Your task to perform on an android device: Open CNN.com Image 0: 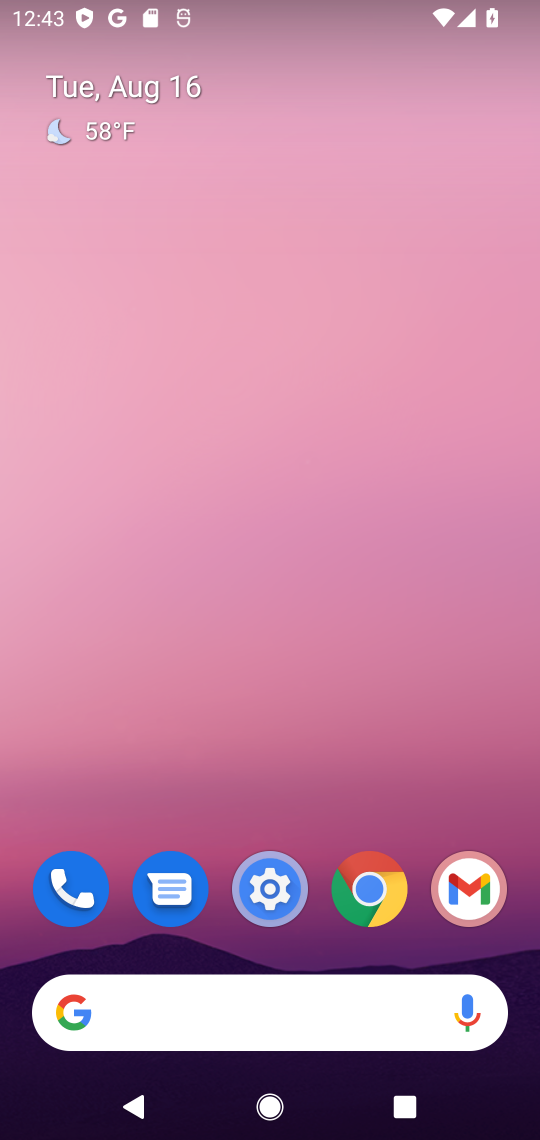
Step 0: drag from (252, 871) to (391, 0)
Your task to perform on an android device: Open CNN.com Image 1: 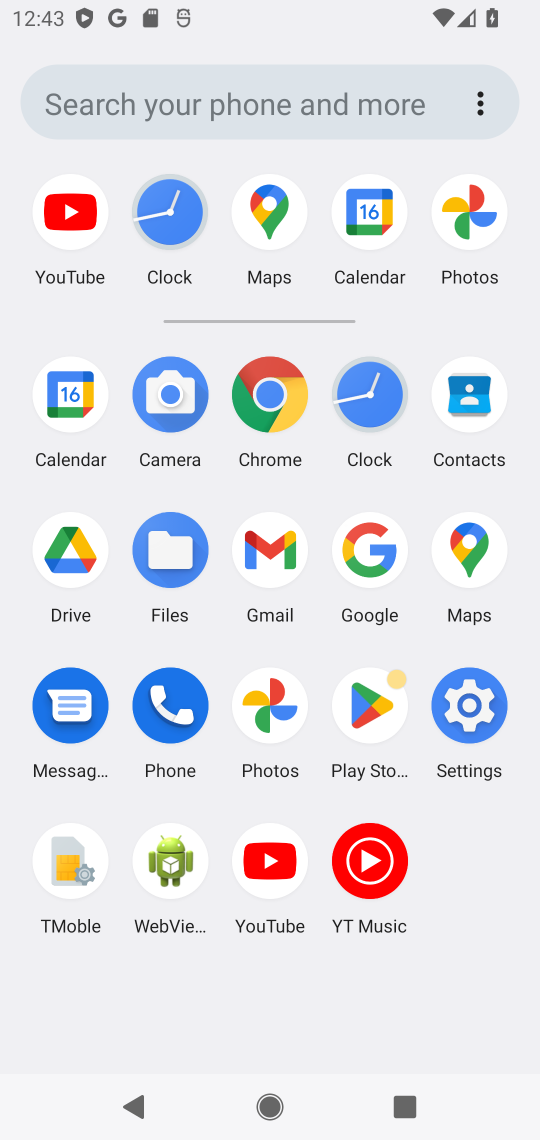
Step 1: click (283, 400)
Your task to perform on an android device: Open CNN.com Image 2: 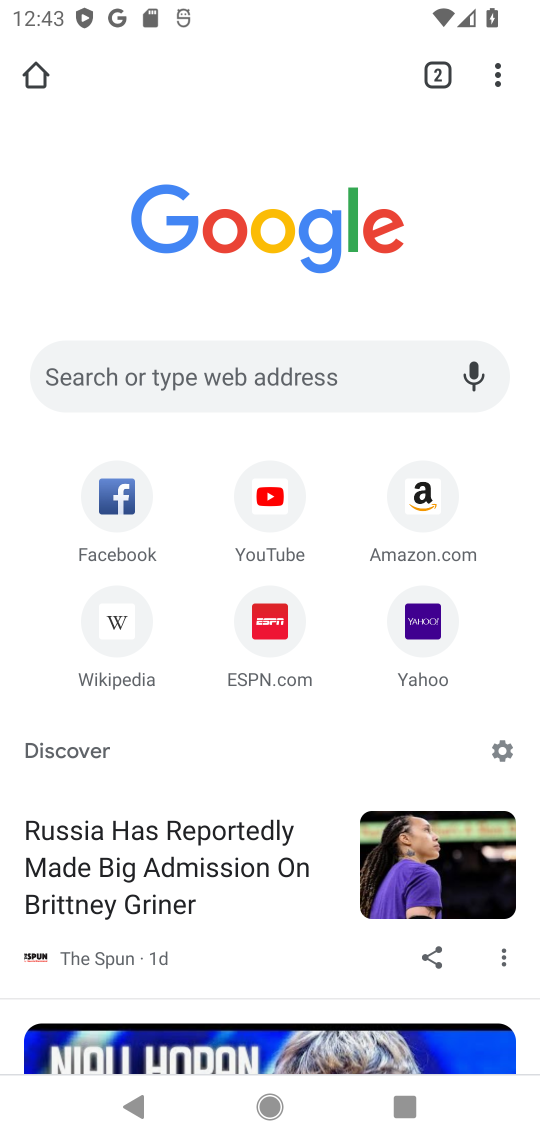
Step 2: click (189, 375)
Your task to perform on an android device: Open CNN.com Image 3: 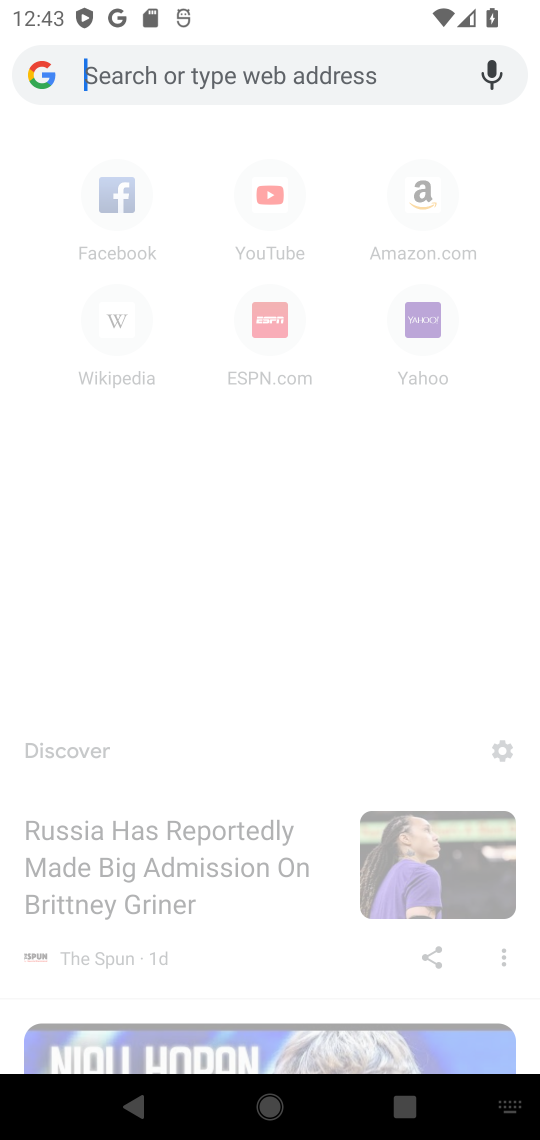
Step 3: type "CNN.com"
Your task to perform on an android device: Open CNN.com Image 4: 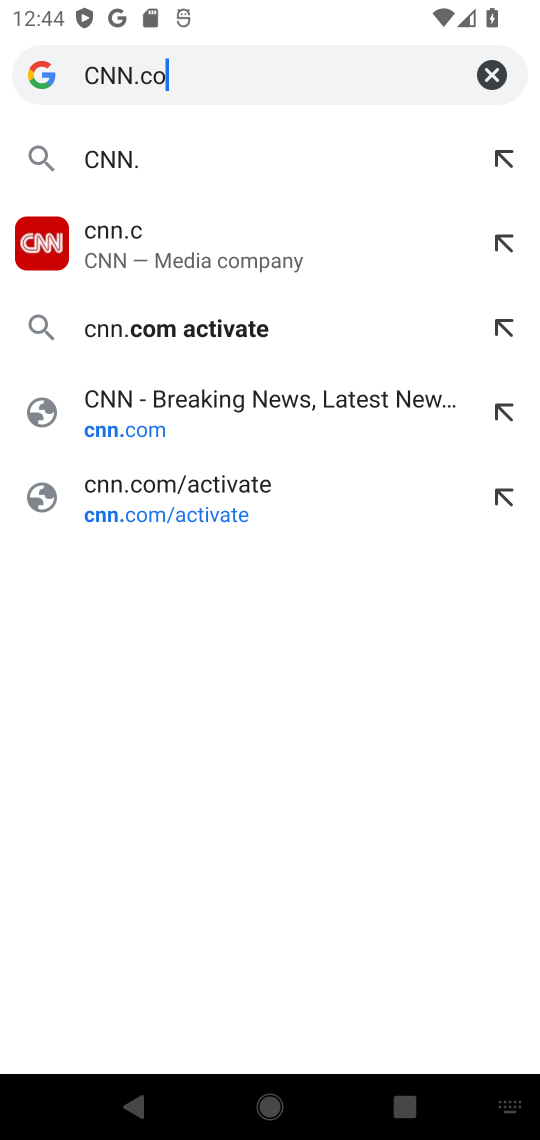
Step 4: press enter
Your task to perform on an android device: Open CNN.com Image 5: 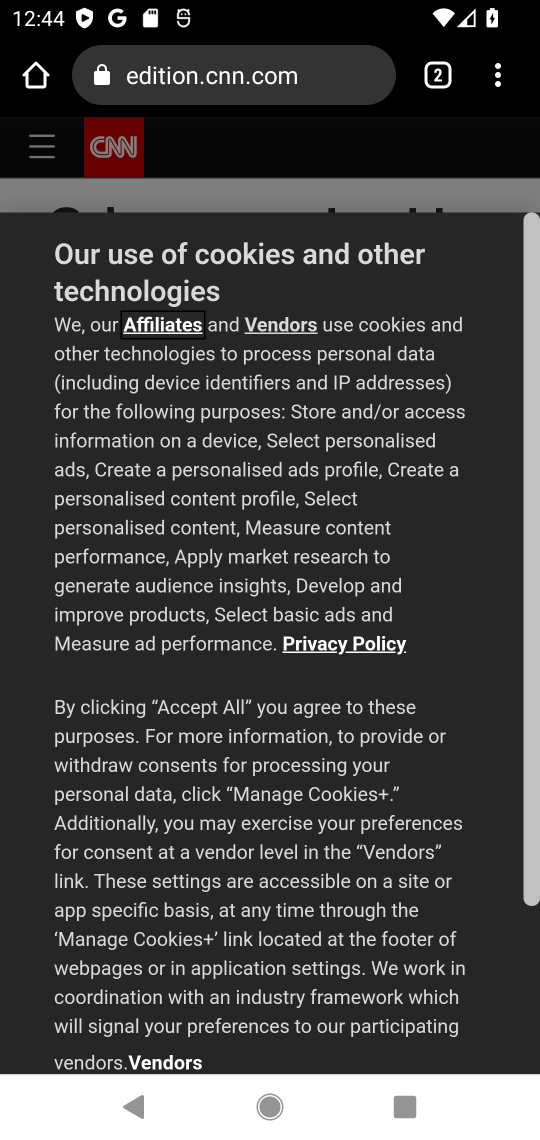
Step 5: task complete